Your task to perform on an android device: Search for the new Nike Air Max 270 on Nike.com Image 0: 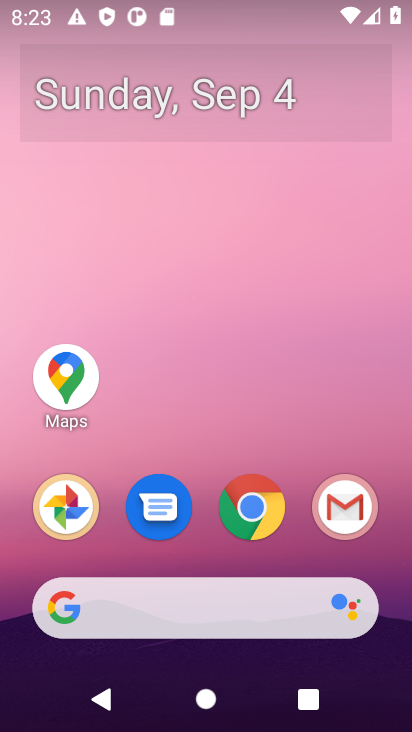
Step 0: click (248, 507)
Your task to perform on an android device: Search for the new Nike Air Max 270 on Nike.com Image 1: 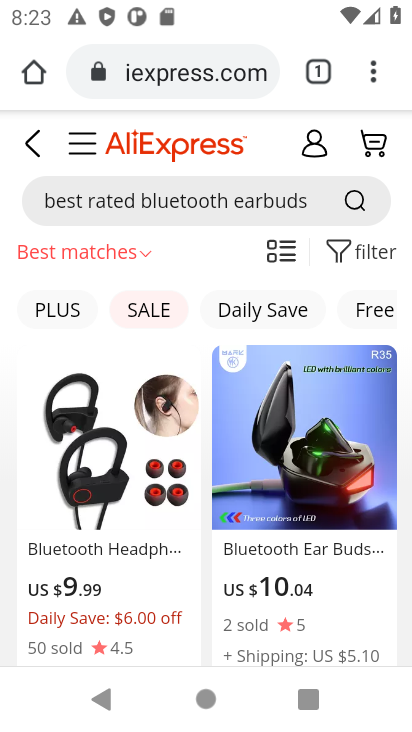
Step 1: click (217, 78)
Your task to perform on an android device: Search for the new Nike Air Max 270 on Nike.com Image 2: 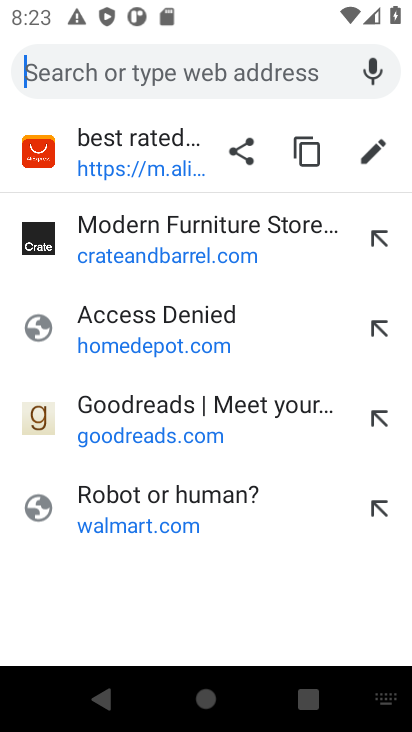
Step 2: type "nike.com"
Your task to perform on an android device: Search for the new Nike Air Max 270 on Nike.com Image 3: 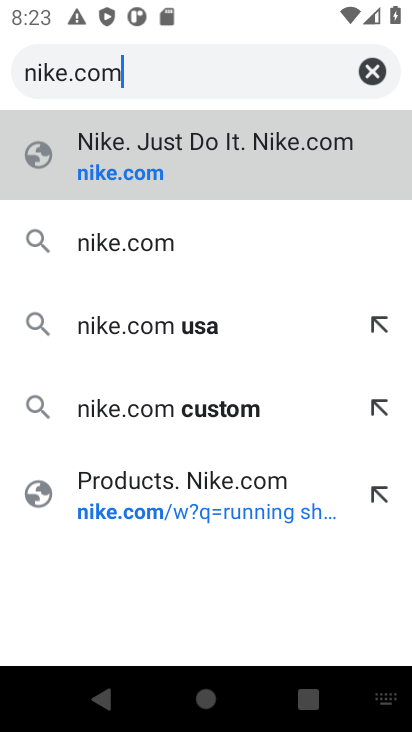
Step 3: click (193, 146)
Your task to perform on an android device: Search for the new Nike Air Max 270 on Nike.com Image 4: 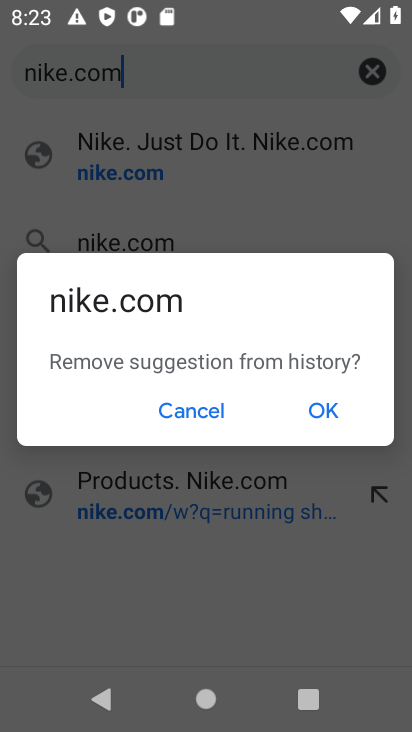
Step 4: click (196, 414)
Your task to perform on an android device: Search for the new Nike Air Max 270 on Nike.com Image 5: 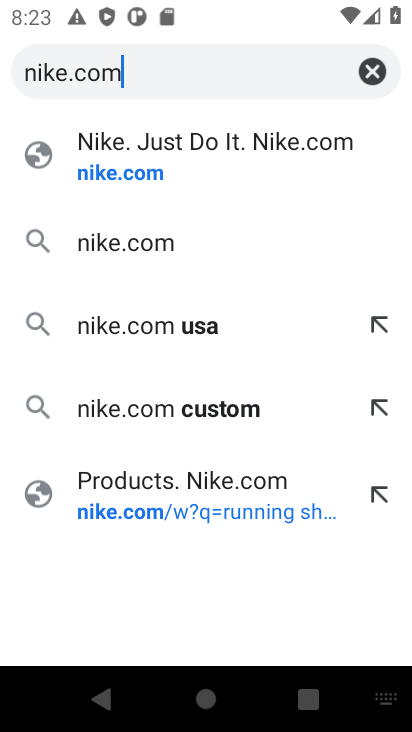
Step 5: click (184, 127)
Your task to perform on an android device: Search for the new Nike Air Max 270 on Nike.com Image 6: 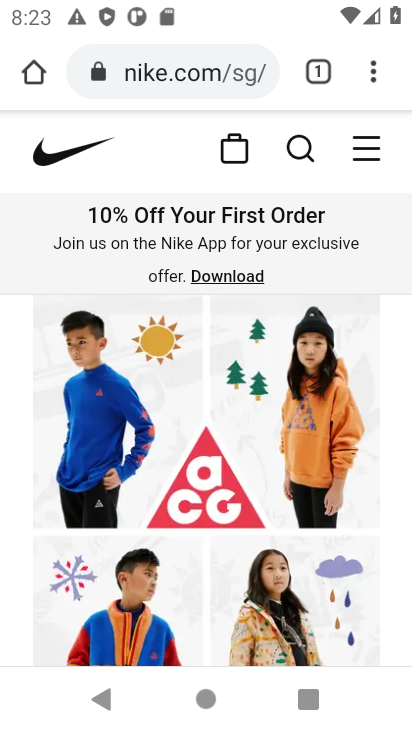
Step 6: click (306, 146)
Your task to perform on an android device: Search for the new Nike Air Max 270 on Nike.com Image 7: 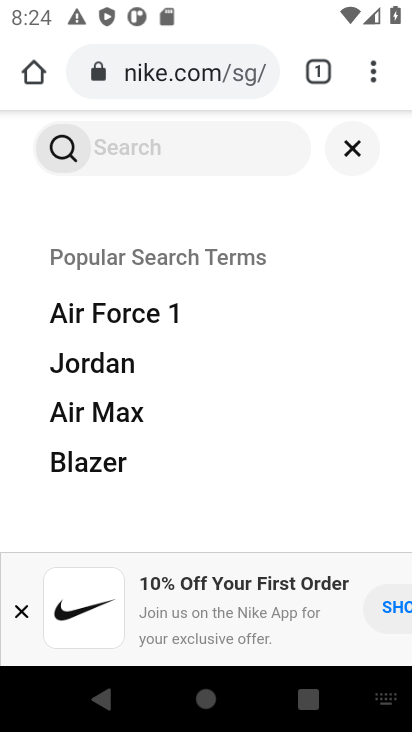
Step 7: press enter
Your task to perform on an android device: Search for the new Nike Air Max 270 on Nike.com Image 8: 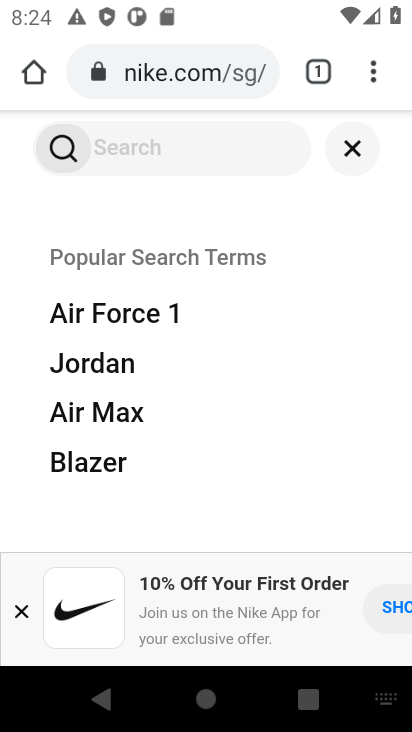
Step 8: type "nike air max 270"
Your task to perform on an android device: Search for the new Nike Air Max 270 on Nike.com Image 9: 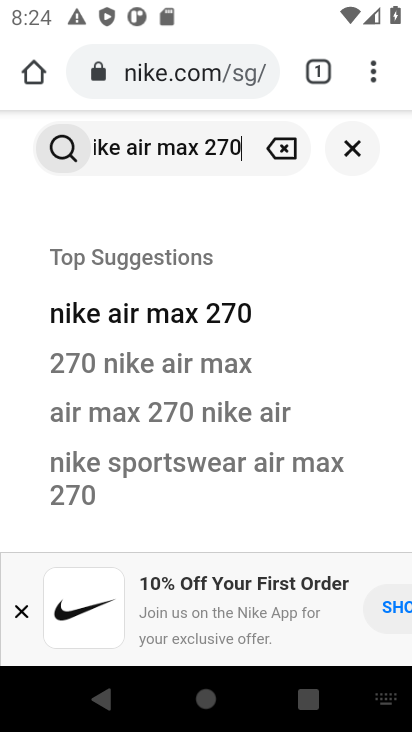
Step 9: press enter
Your task to perform on an android device: Search for the new Nike Air Max 270 on Nike.com Image 10: 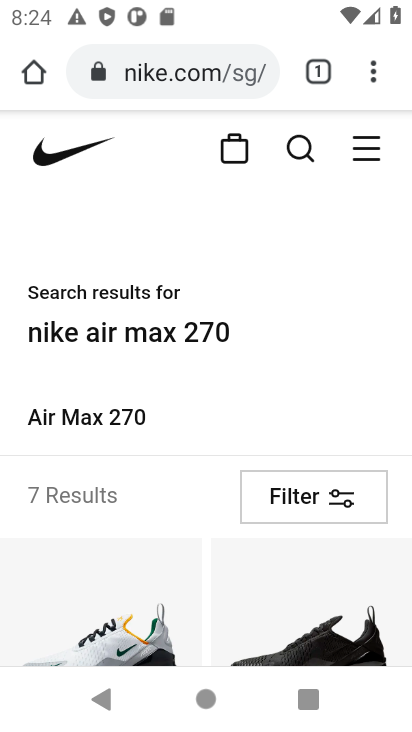
Step 10: task complete